Your task to perform on an android device: View the shopping cart on amazon. Add usb-b to the cart on amazon, then select checkout. Image 0: 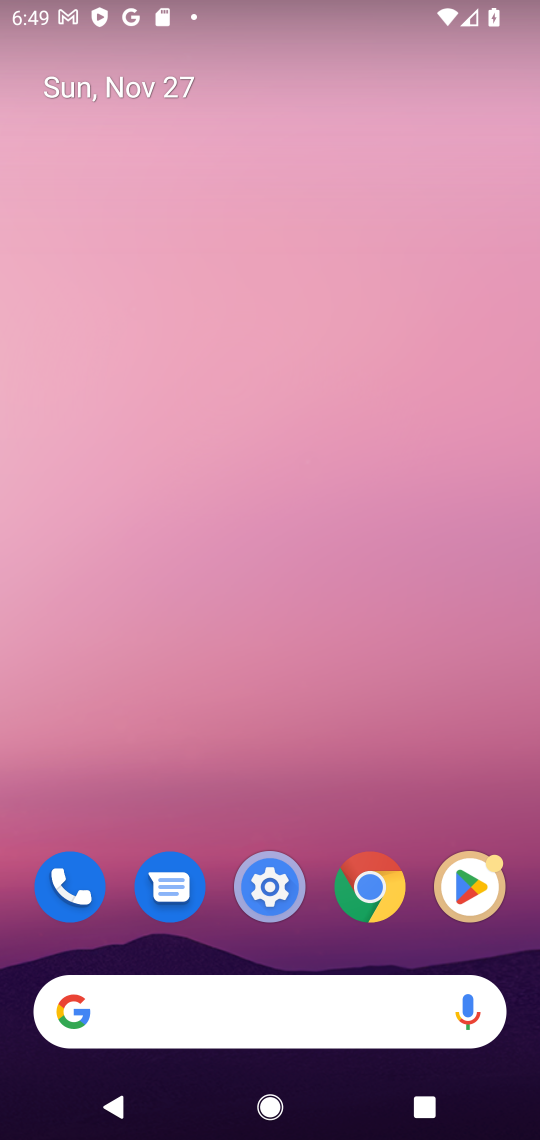
Step 0: click (239, 1028)
Your task to perform on an android device: View the shopping cart on amazon. Add usb-b to the cart on amazon, then select checkout. Image 1: 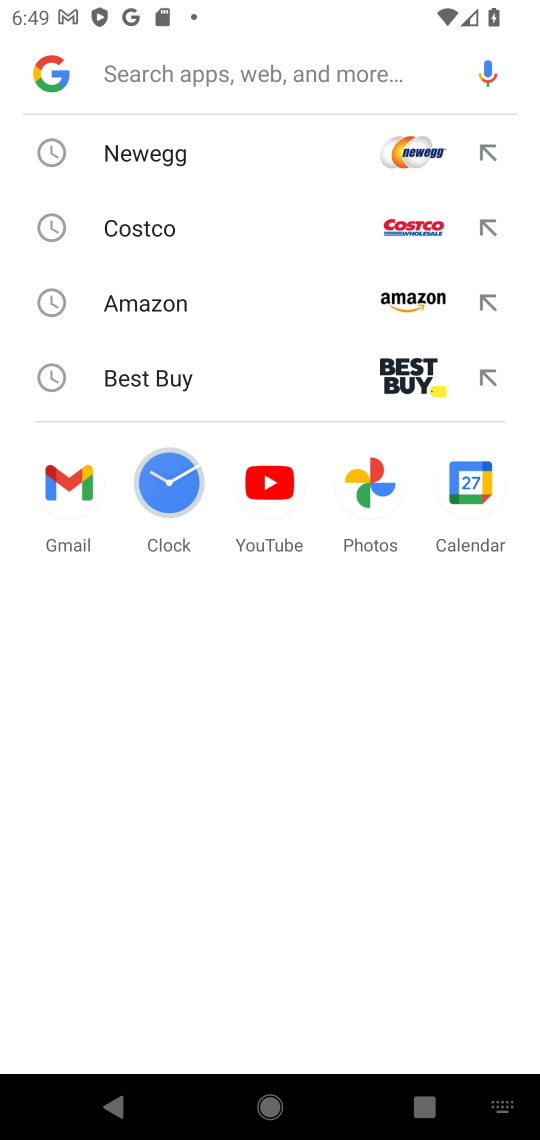
Step 1: type "amazon"
Your task to perform on an android device: View the shopping cart on amazon. Add usb-b to the cart on amazon, then select checkout. Image 2: 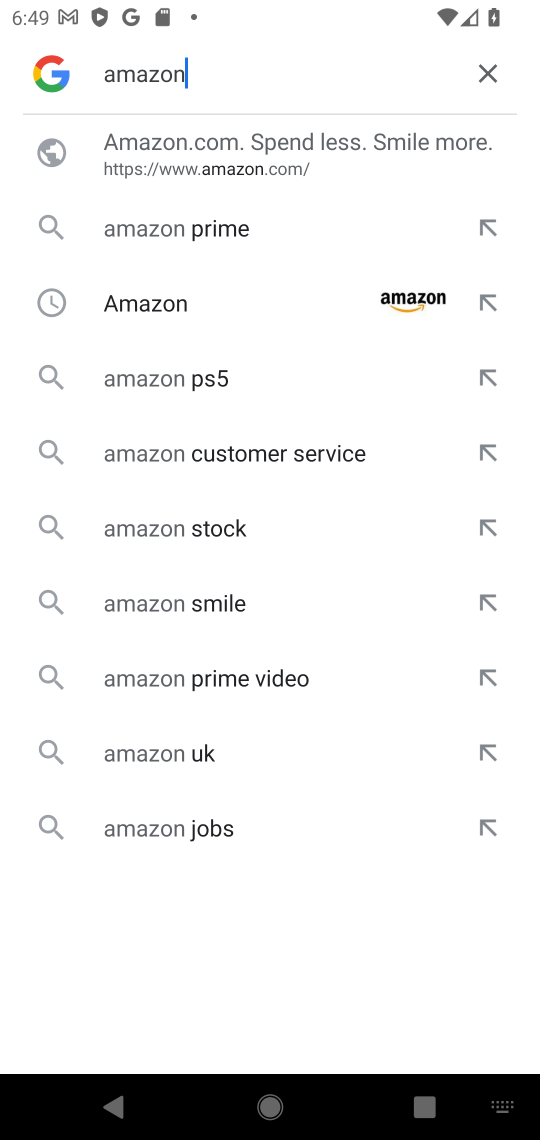
Step 2: click (226, 188)
Your task to perform on an android device: View the shopping cart on amazon. Add usb-b to the cart on amazon, then select checkout. Image 3: 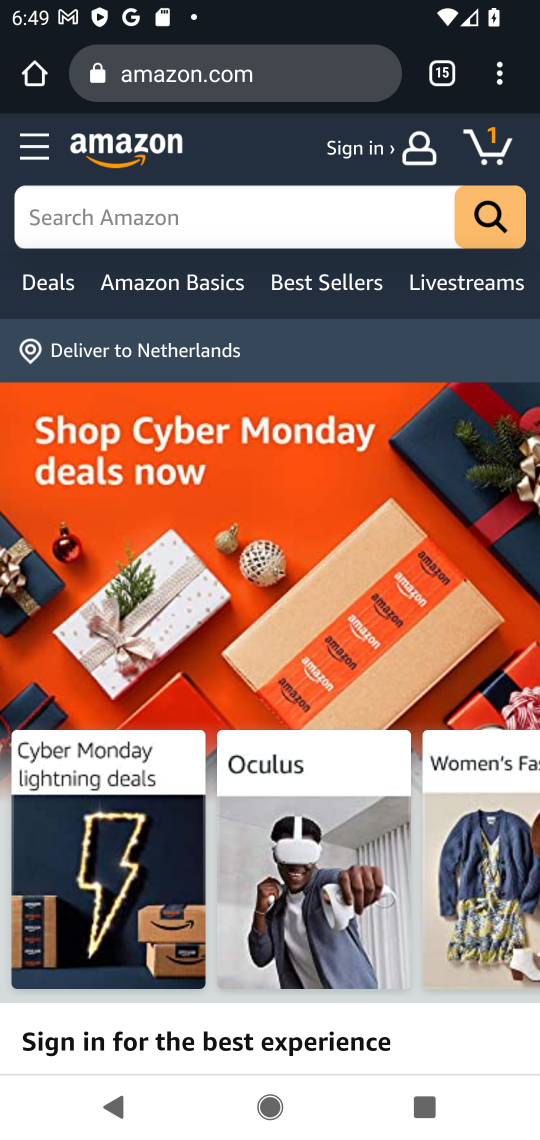
Step 3: click (206, 207)
Your task to perform on an android device: View the shopping cart on amazon. Add usb-b to the cart on amazon, then select checkout. Image 4: 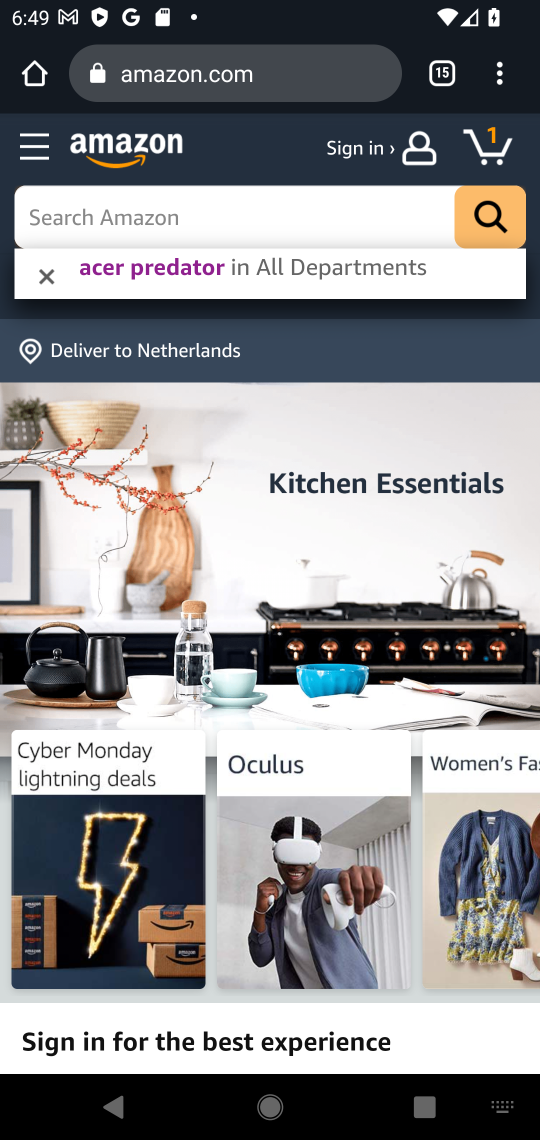
Step 4: type "usb"
Your task to perform on an android device: View the shopping cart on amazon. Add usb-b to the cart on amazon, then select checkout. Image 5: 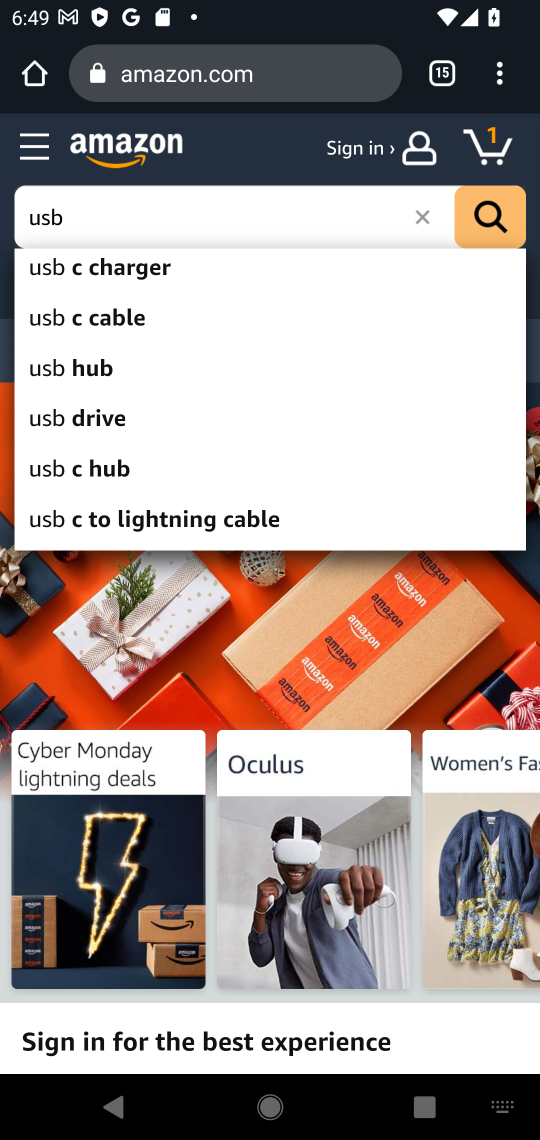
Step 5: type "-b "
Your task to perform on an android device: View the shopping cart on amazon. Add usb-b to the cart on amazon, then select checkout. Image 6: 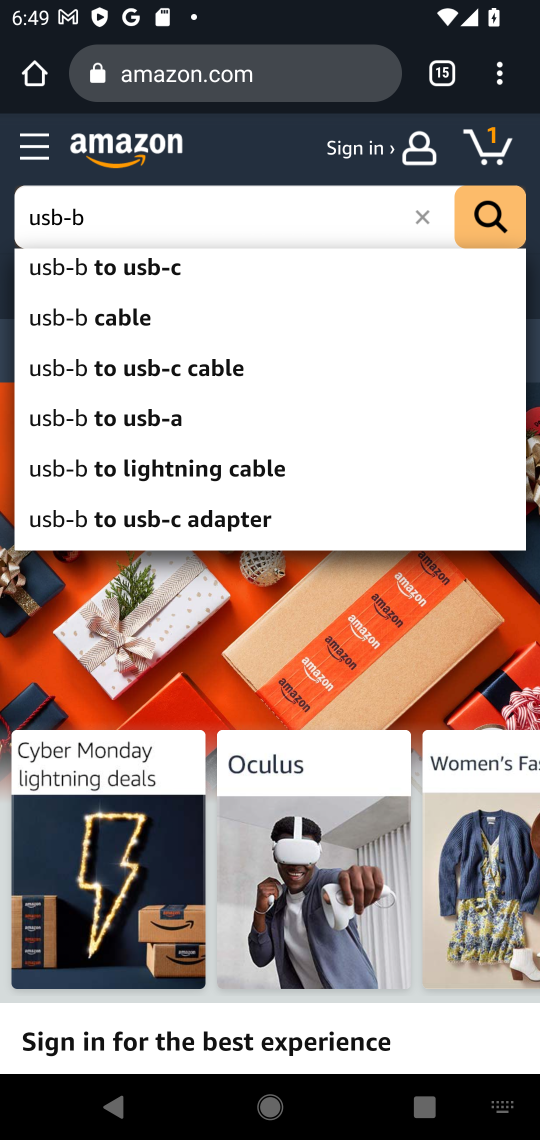
Step 6: click (198, 325)
Your task to perform on an android device: View the shopping cart on amazon. Add usb-b to the cart on amazon, then select checkout. Image 7: 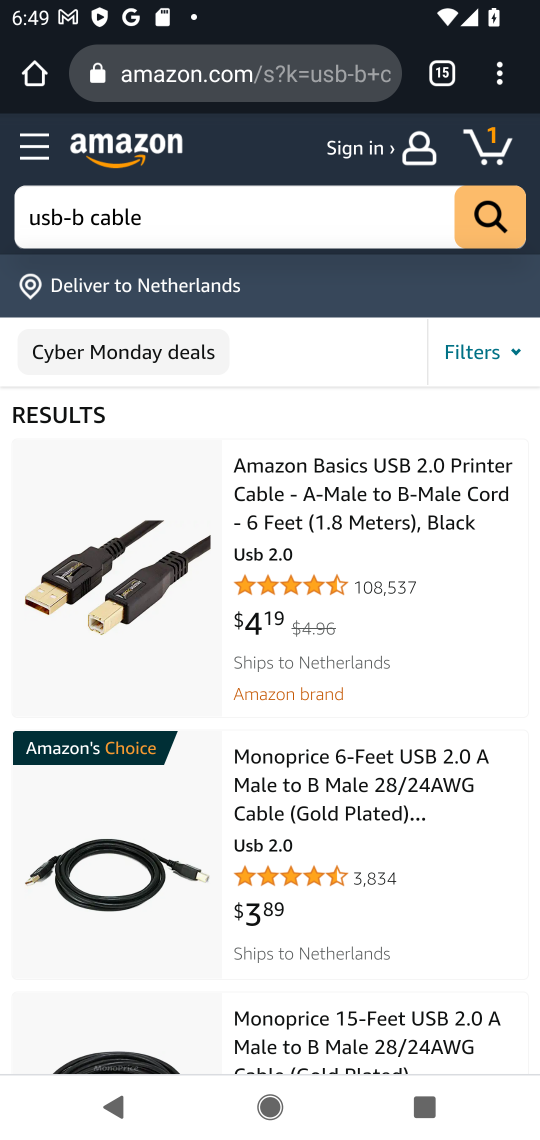
Step 7: click (260, 513)
Your task to perform on an android device: View the shopping cart on amazon. Add usb-b to the cart on amazon, then select checkout. Image 8: 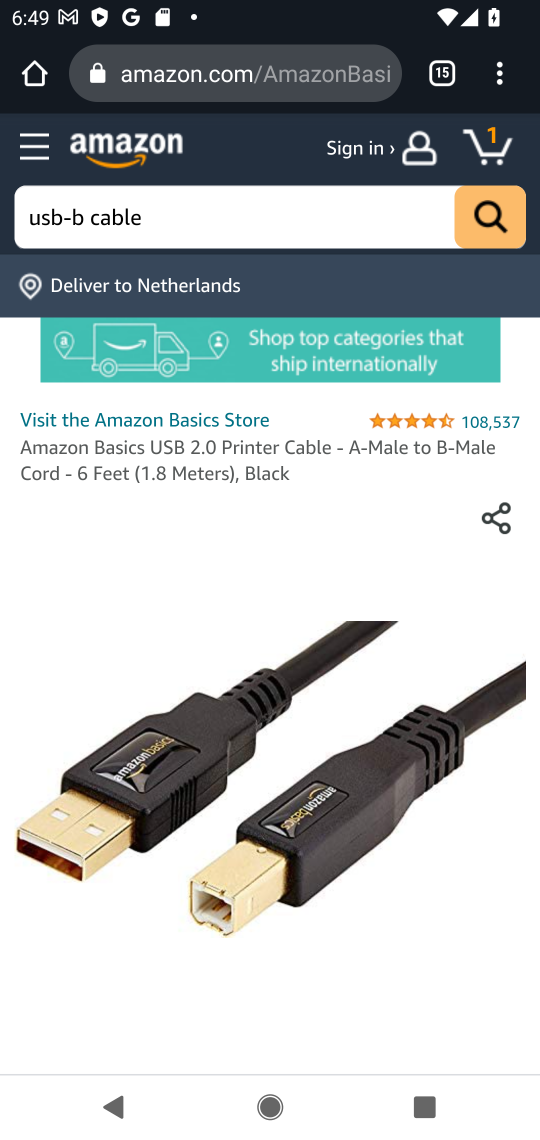
Step 8: drag from (320, 965) to (286, 740)
Your task to perform on an android device: View the shopping cart on amazon. Add usb-b to the cart on amazon, then select checkout. Image 9: 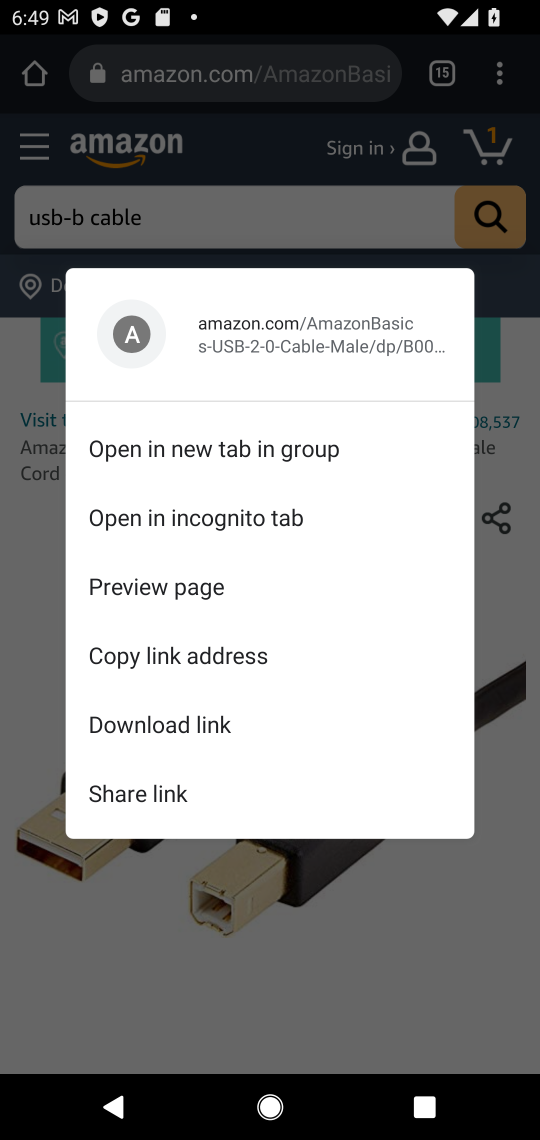
Step 9: click (312, 927)
Your task to perform on an android device: View the shopping cart on amazon. Add usb-b to the cart on amazon, then select checkout. Image 10: 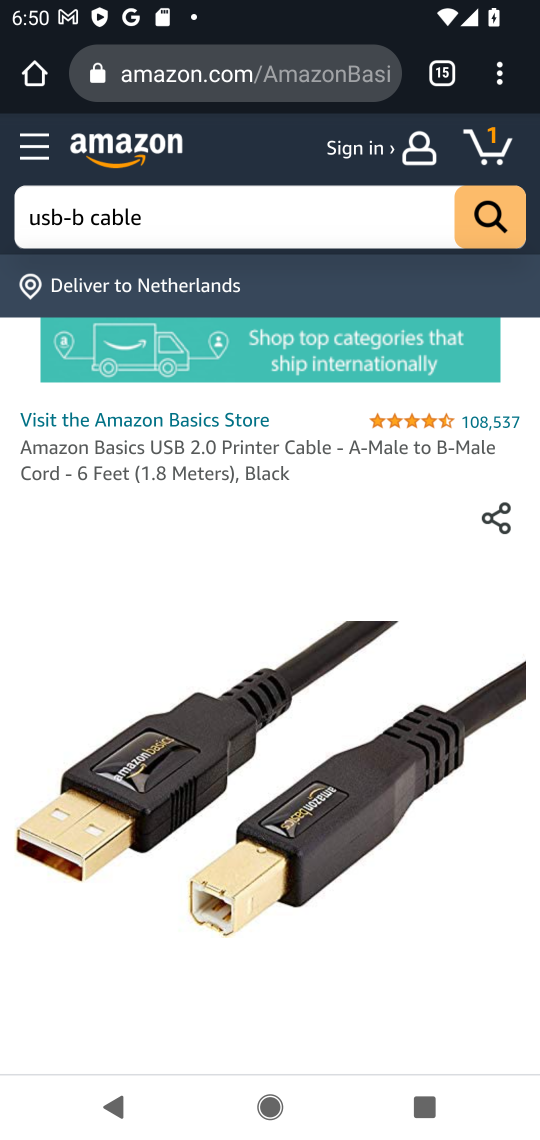
Step 10: drag from (374, 993) to (352, 493)
Your task to perform on an android device: View the shopping cart on amazon. Add usb-b to the cart on amazon, then select checkout. Image 11: 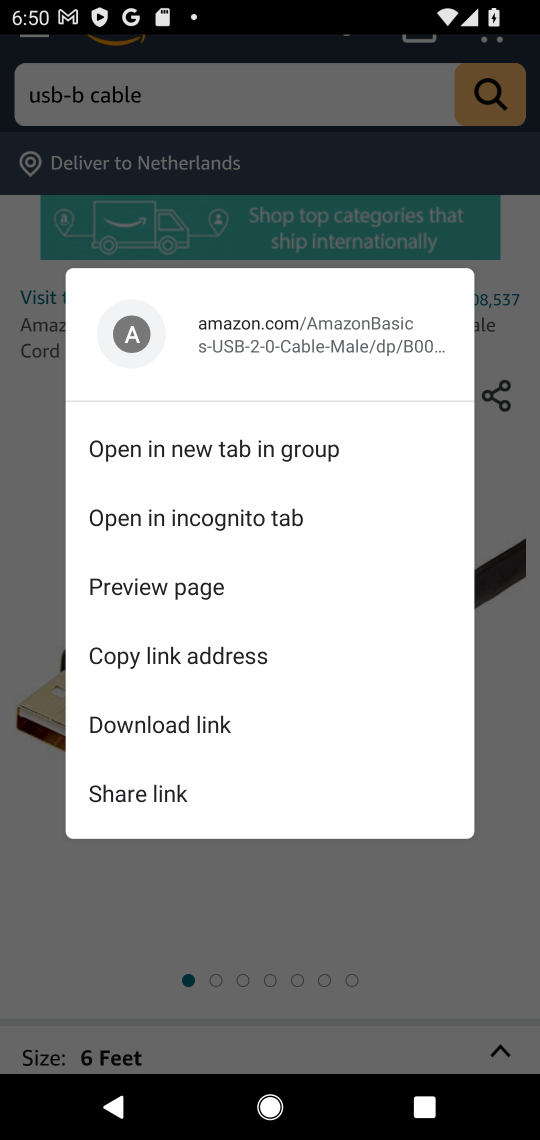
Step 11: click (357, 909)
Your task to perform on an android device: View the shopping cart on amazon. Add usb-b to the cart on amazon, then select checkout. Image 12: 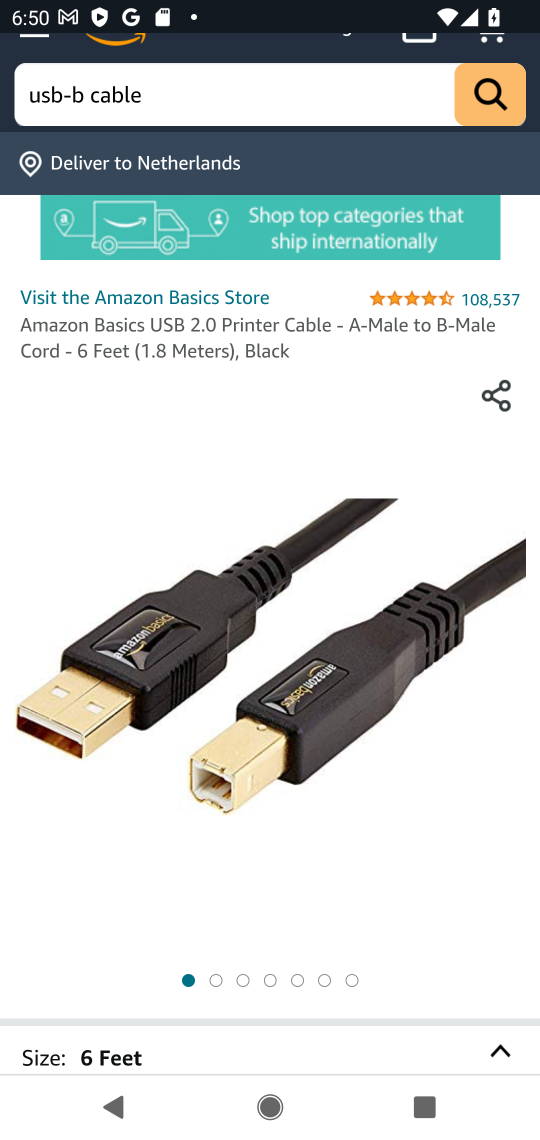
Step 12: drag from (410, 918) to (398, 585)
Your task to perform on an android device: View the shopping cart on amazon. Add usb-b to the cart on amazon, then select checkout. Image 13: 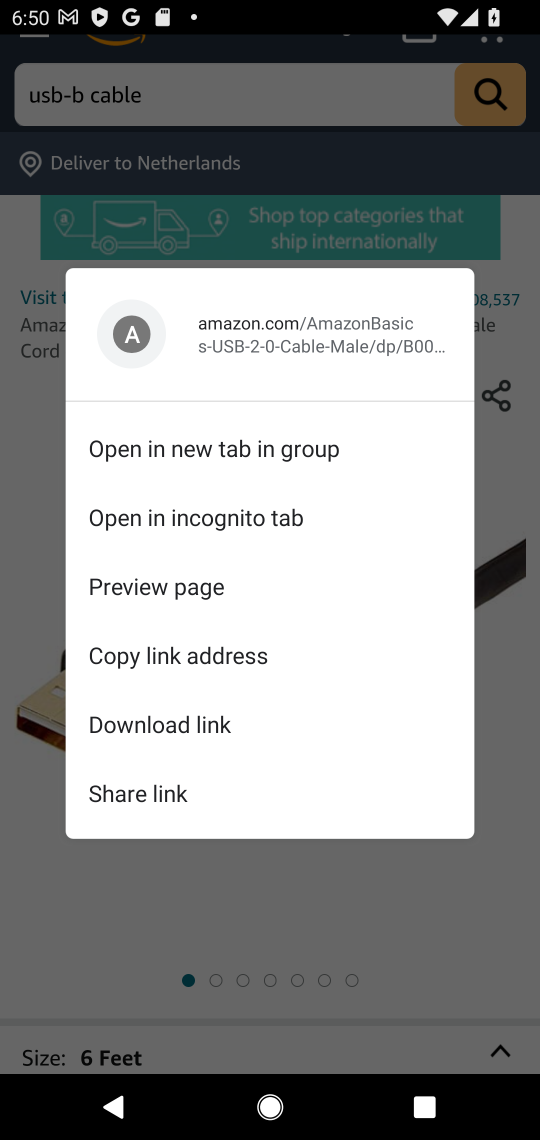
Step 13: click (422, 916)
Your task to perform on an android device: View the shopping cart on amazon. Add usb-b to the cart on amazon, then select checkout. Image 14: 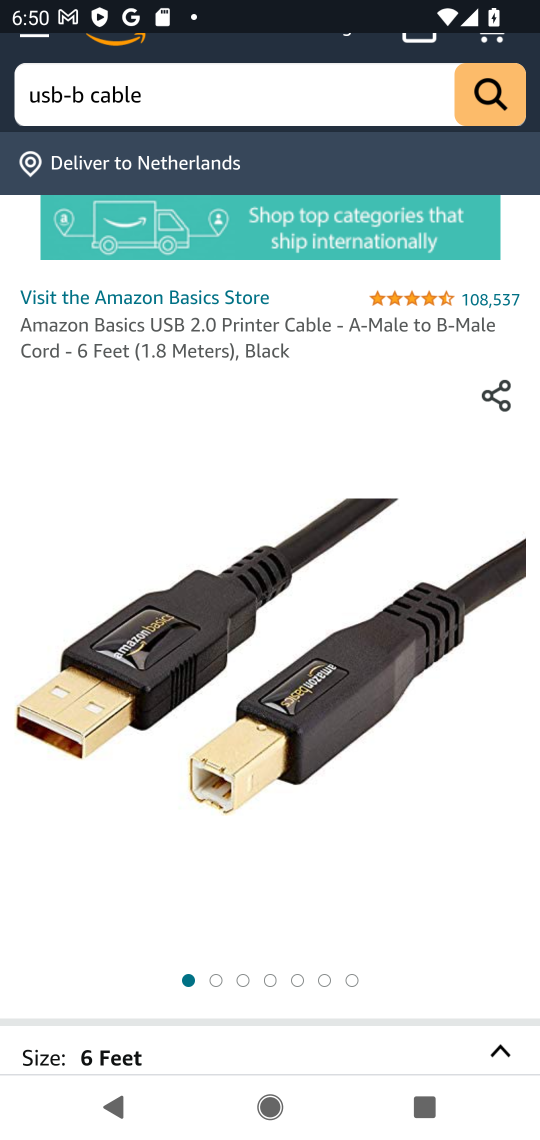
Step 14: task complete